Your task to perform on an android device: turn on improve location accuracy Image 0: 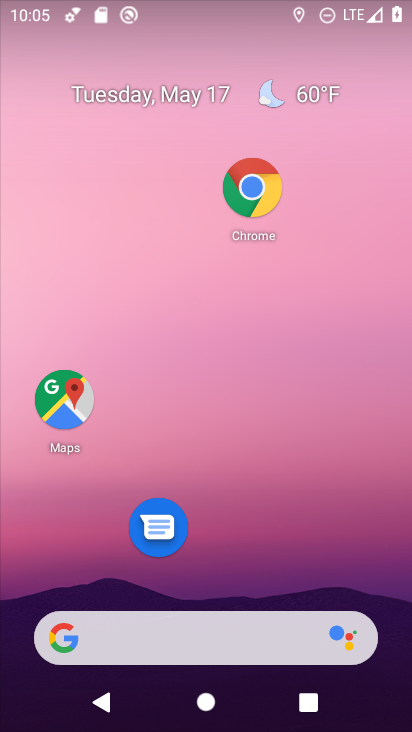
Step 0: drag from (320, 583) to (304, 80)
Your task to perform on an android device: turn on improve location accuracy Image 1: 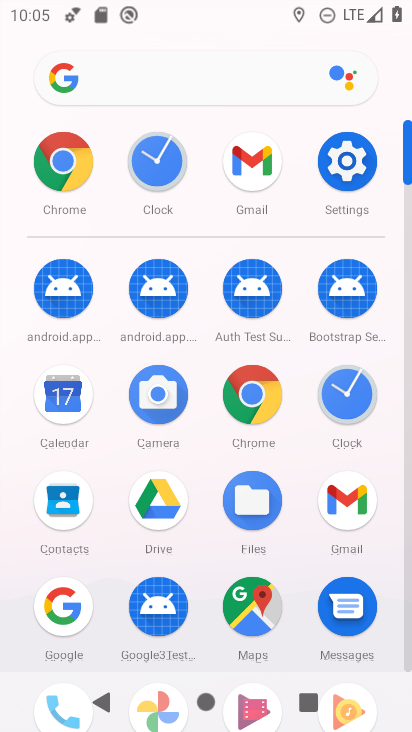
Step 1: click (332, 159)
Your task to perform on an android device: turn on improve location accuracy Image 2: 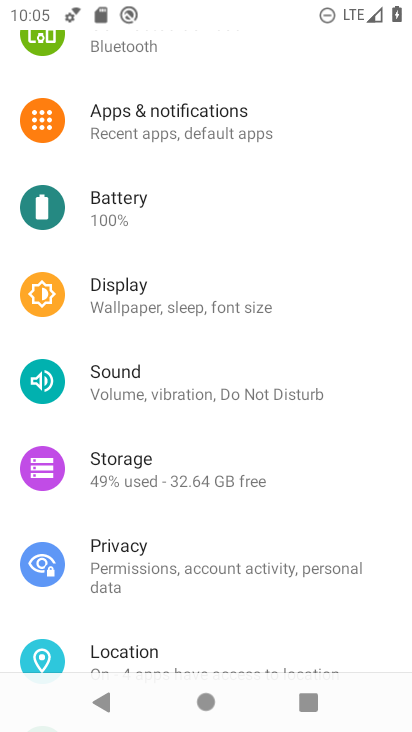
Step 2: click (193, 656)
Your task to perform on an android device: turn on improve location accuracy Image 3: 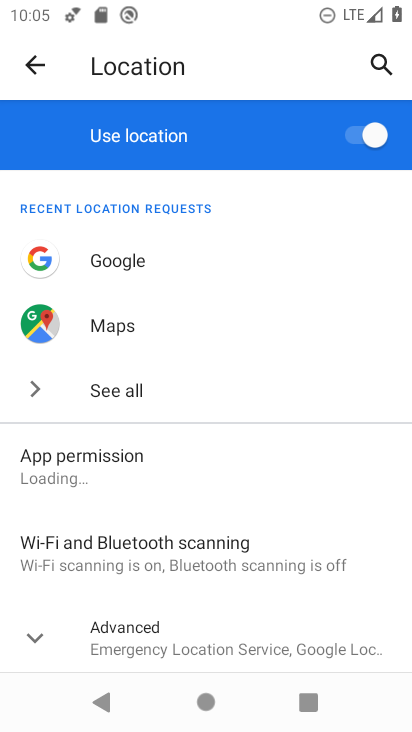
Step 3: click (182, 627)
Your task to perform on an android device: turn on improve location accuracy Image 4: 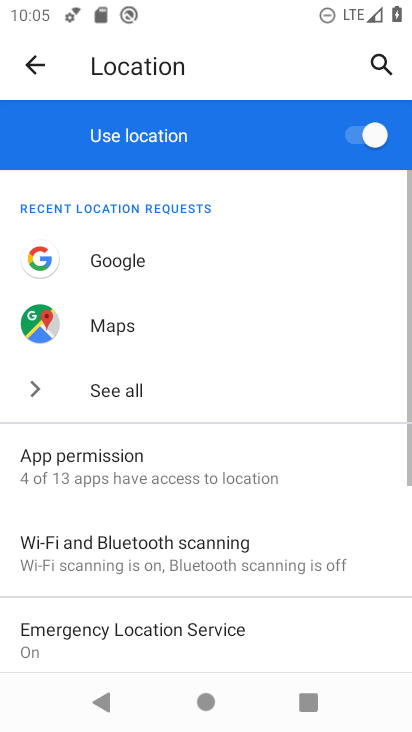
Step 4: drag from (266, 543) to (270, 273)
Your task to perform on an android device: turn on improve location accuracy Image 5: 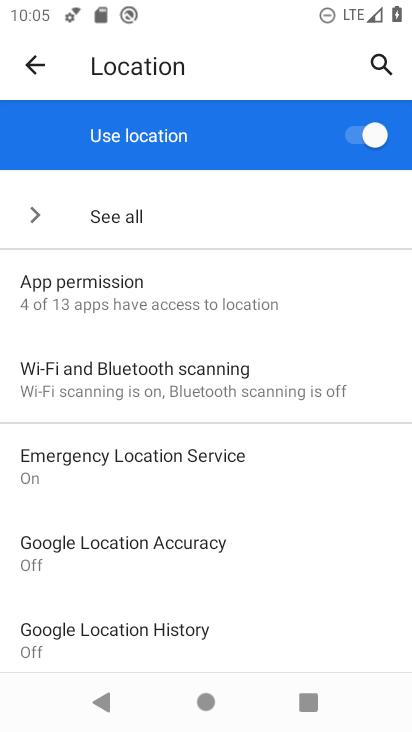
Step 5: click (266, 563)
Your task to perform on an android device: turn on improve location accuracy Image 6: 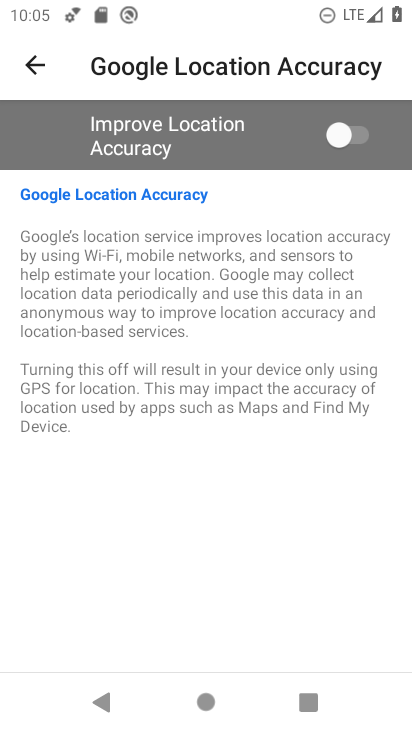
Step 6: click (357, 117)
Your task to perform on an android device: turn on improve location accuracy Image 7: 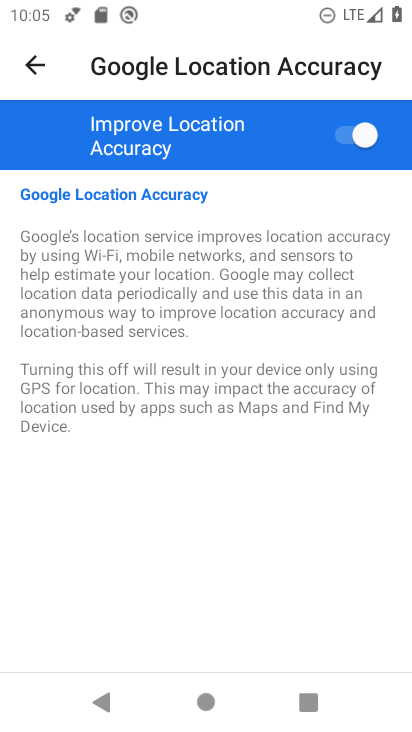
Step 7: task complete